Your task to perform on an android device: toggle javascript in the chrome app Image 0: 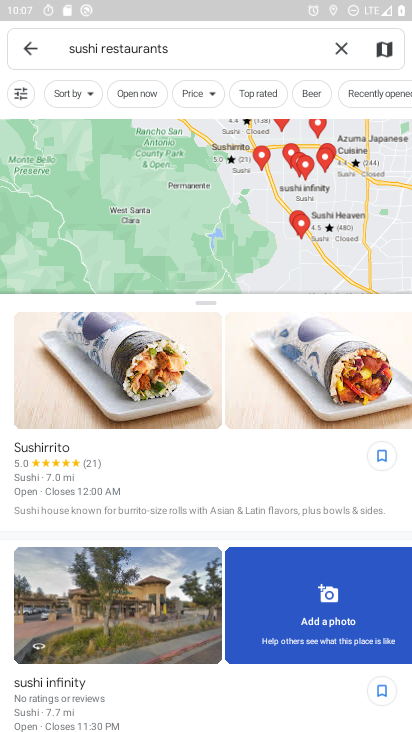
Step 0: press home button
Your task to perform on an android device: toggle javascript in the chrome app Image 1: 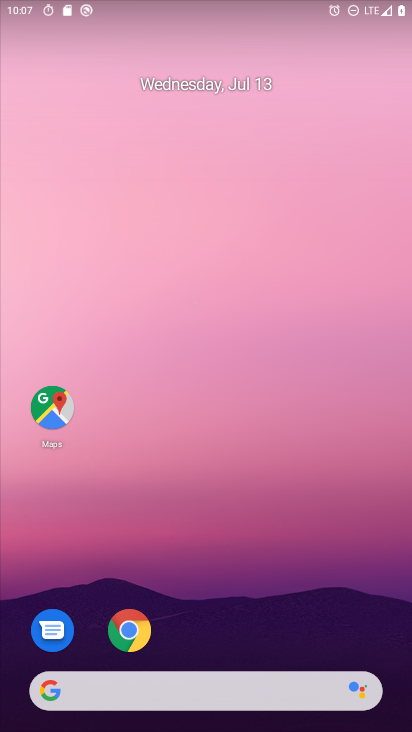
Step 1: drag from (383, 631) to (212, 38)
Your task to perform on an android device: toggle javascript in the chrome app Image 2: 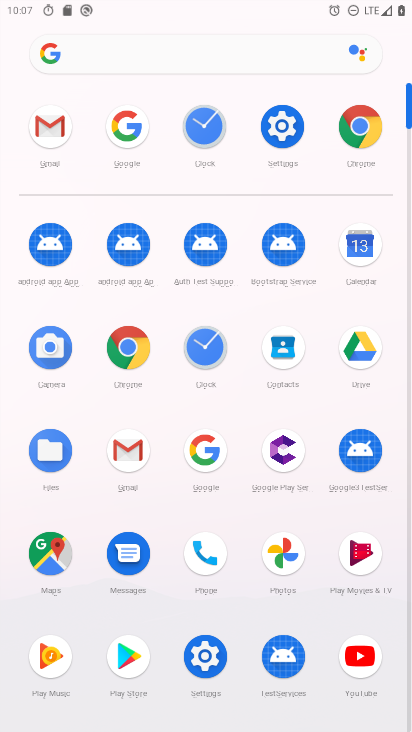
Step 2: click (126, 343)
Your task to perform on an android device: toggle javascript in the chrome app Image 3: 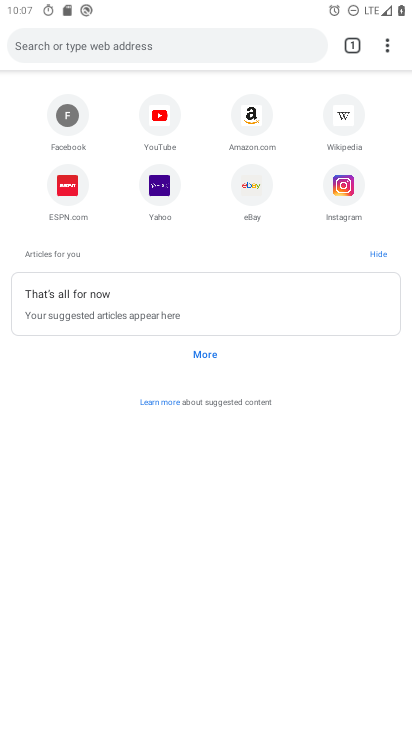
Step 3: click (386, 44)
Your task to perform on an android device: toggle javascript in the chrome app Image 4: 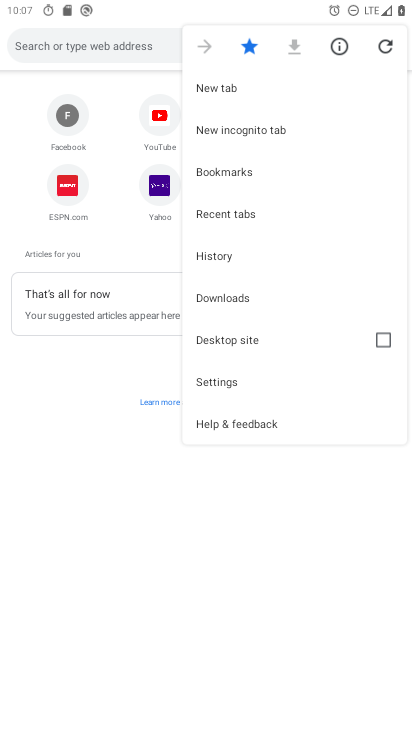
Step 4: click (263, 386)
Your task to perform on an android device: toggle javascript in the chrome app Image 5: 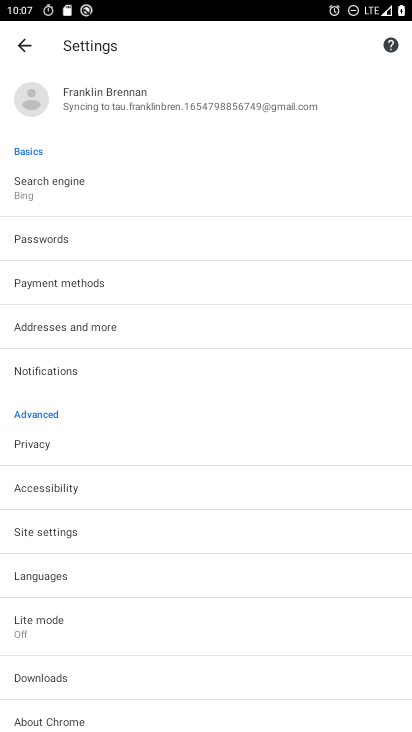
Step 5: click (82, 531)
Your task to perform on an android device: toggle javascript in the chrome app Image 6: 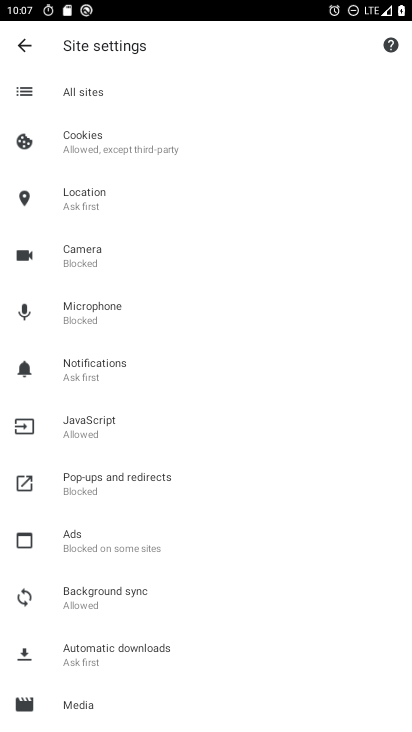
Step 6: click (106, 438)
Your task to perform on an android device: toggle javascript in the chrome app Image 7: 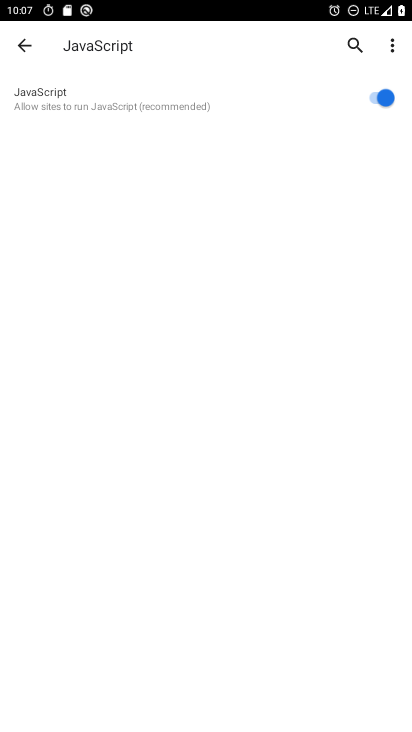
Step 7: click (376, 99)
Your task to perform on an android device: toggle javascript in the chrome app Image 8: 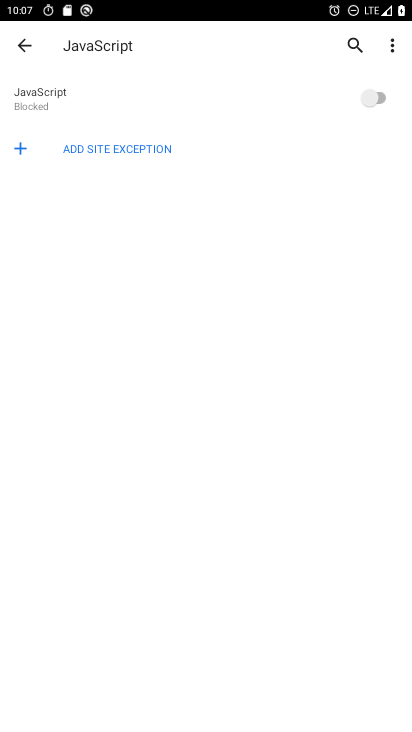
Step 8: task complete